Your task to perform on an android device: change notification settings in the gmail app Image 0: 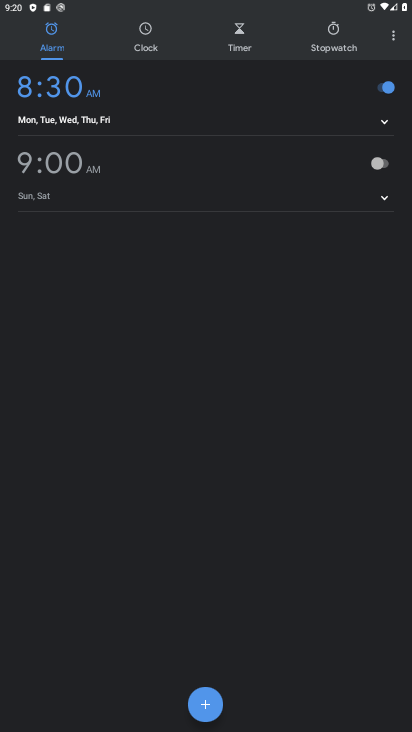
Step 0: press home button
Your task to perform on an android device: change notification settings in the gmail app Image 1: 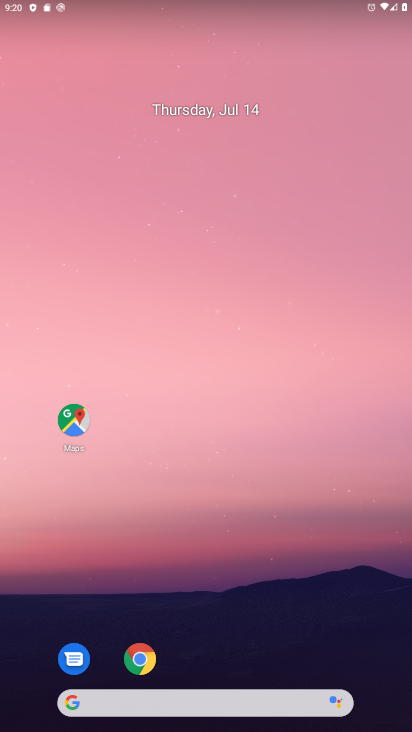
Step 1: drag from (245, 636) to (240, 146)
Your task to perform on an android device: change notification settings in the gmail app Image 2: 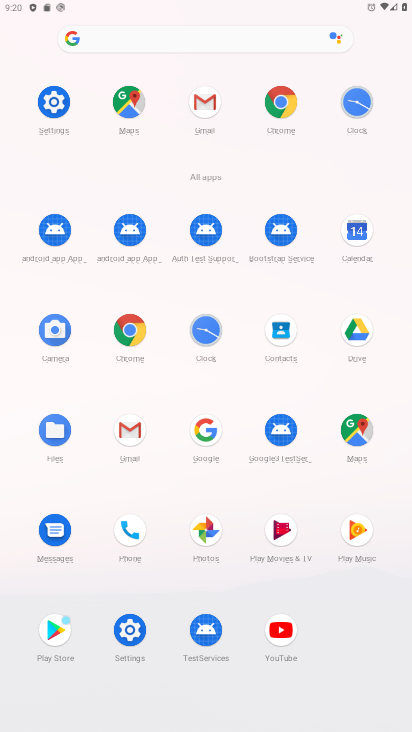
Step 2: click (202, 103)
Your task to perform on an android device: change notification settings in the gmail app Image 3: 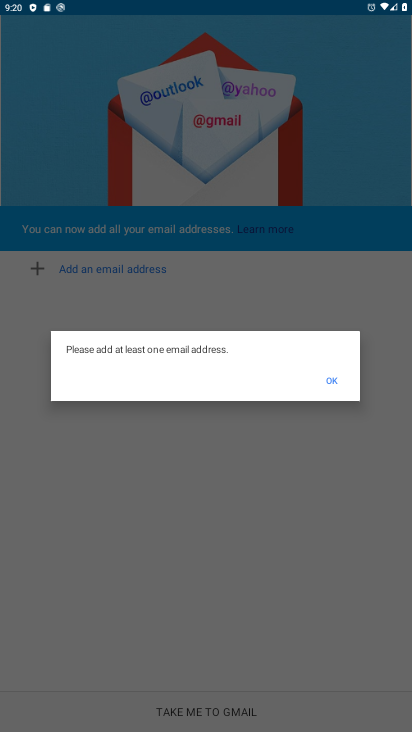
Step 3: click (333, 377)
Your task to perform on an android device: change notification settings in the gmail app Image 4: 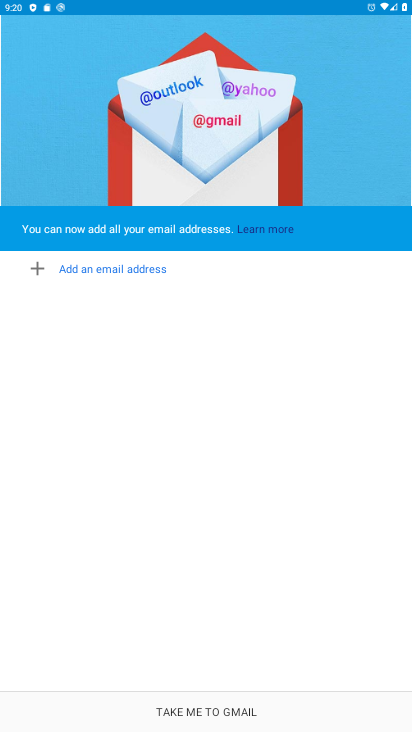
Step 4: click (232, 702)
Your task to perform on an android device: change notification settings in the gmail app Image 5: 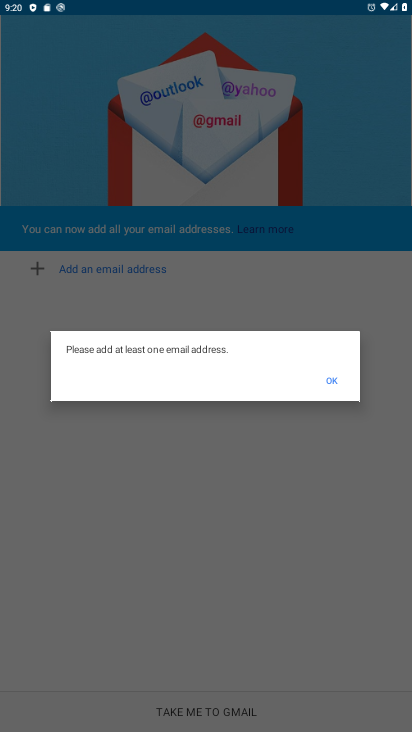
Step 5: task complete